Your task to perform on an android device: turn off airplane mode Image 0: 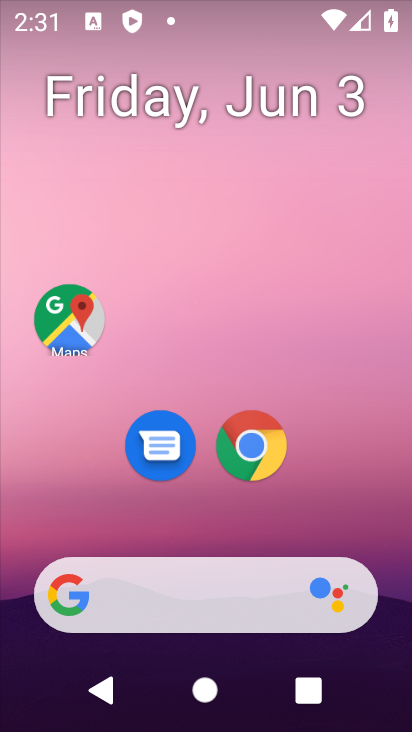
Step 0: drag from (198, 11) to (243, 549)
Your task to perform on an android device: turn off airplane mode Image 1: 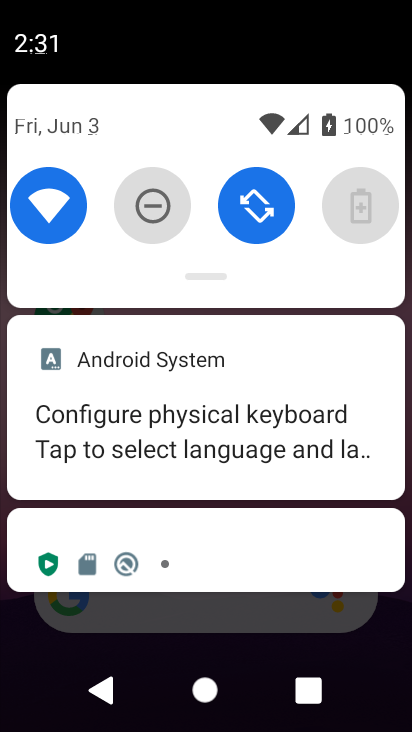
Step 1: task complete